Your task to perform on an android device: Open Wikipedia Image 0: 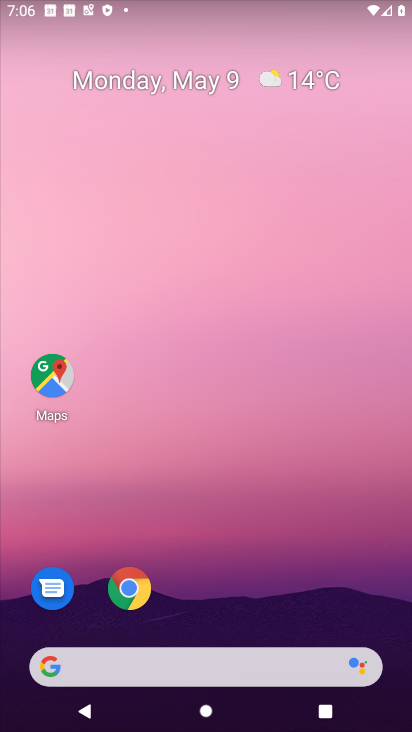
Step 0: drag from (341, 606) to (244, 97)
Your task to perform on an android device: Open Wikipedia Image 1: 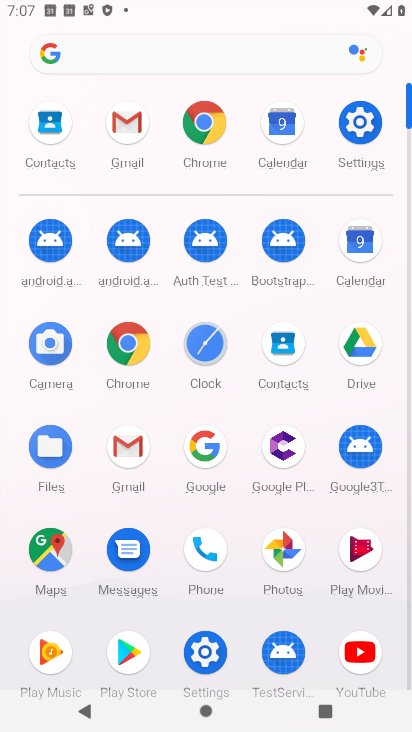
Step 1: click (216, 136)
Your task to perform on an android device: Open Wikipedia Image 2: 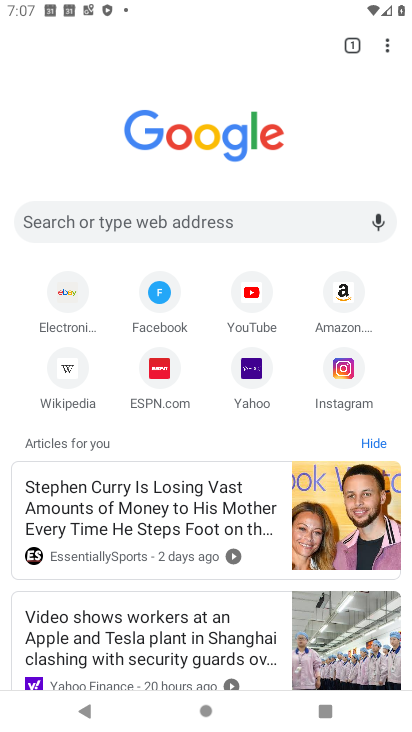
Step 2: click (178, 208)
Your task to perform on an android device: Open Wikipedia Image 3: 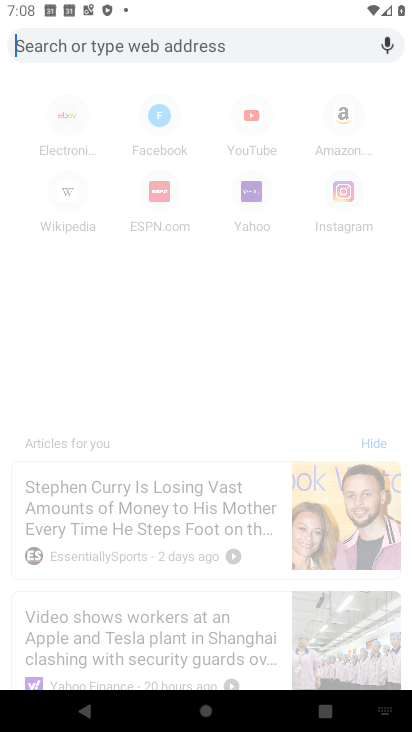
Step 3: type "wikipedia"
Your task to perform on an android device: Open Wikipedia Image 4: 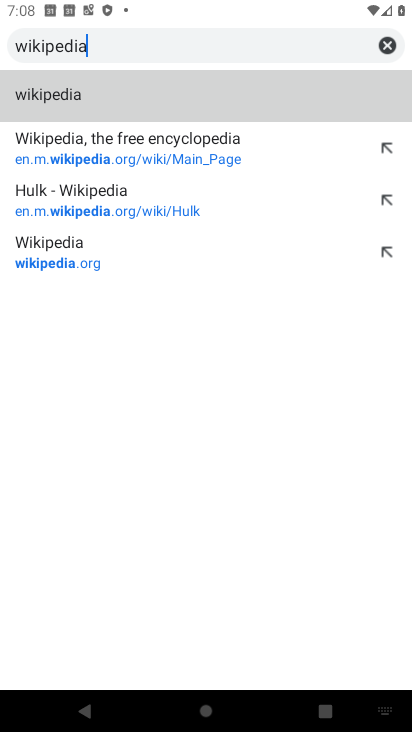
Step 4: click (112, 97)
Your task to perform on an android device: Open Wikipedia Image 5: 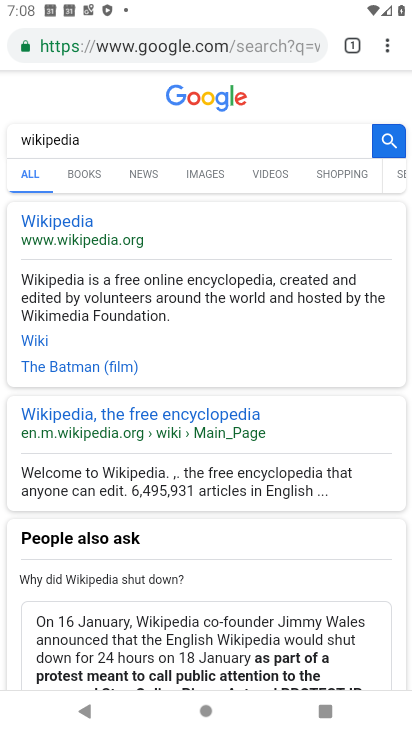
Step 5: click (77, 219)
Your task to perform on an android device: Open Wikipedia Image 6: 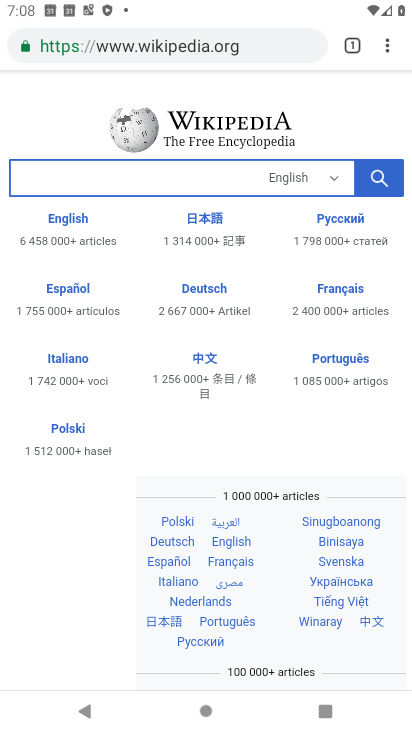
Step 6: task complete